Your task to perform on an android device: set an alarm Image 0: 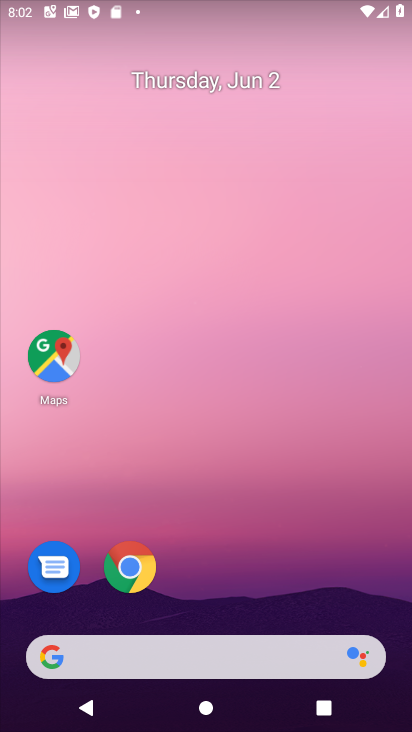
Step 0: drag from (274, 579) to (212, 136)
Your task to perform on an android device: set an alarm Image 1: 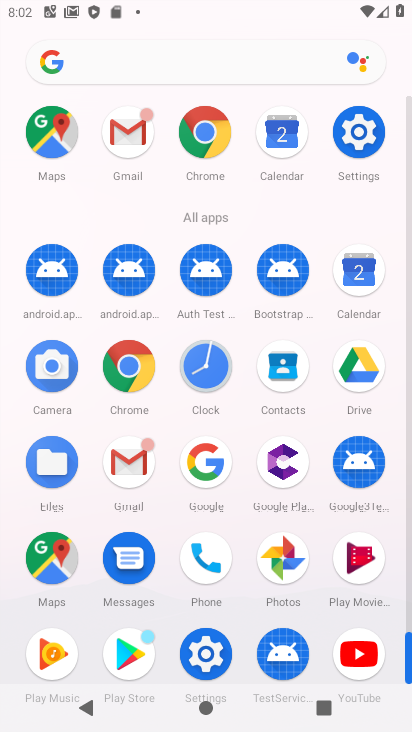
Step 1: click (209, 366)
Your task to perform on an android device: set an alarm Image 2: 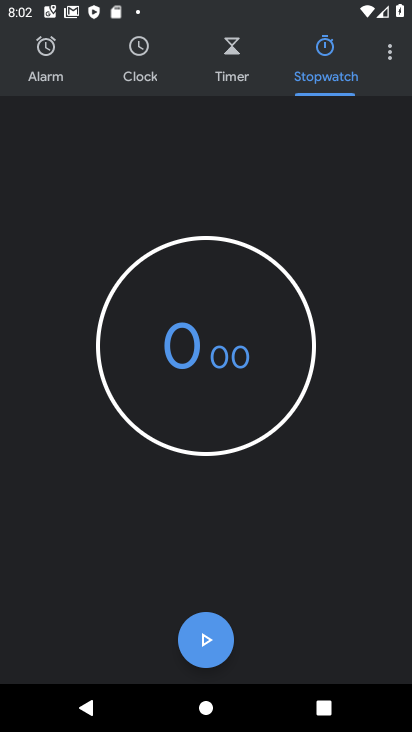
Step 2: click (48, 48)
Your task to perform on an android device: set an alarm Image 3: 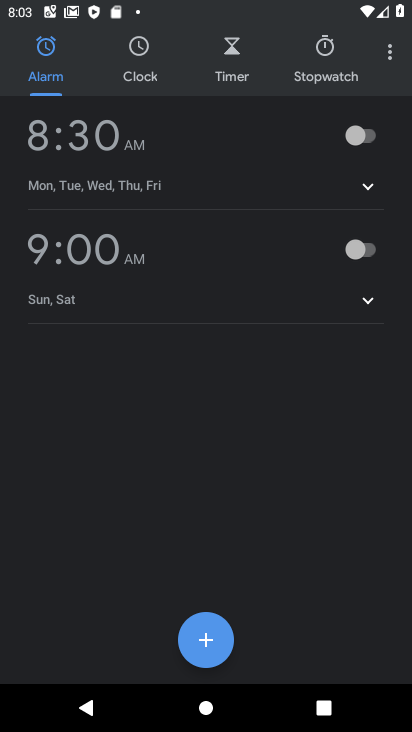
Step 3: click (207, 638)
Your task to perform on an android device: set an alarm Image 4: 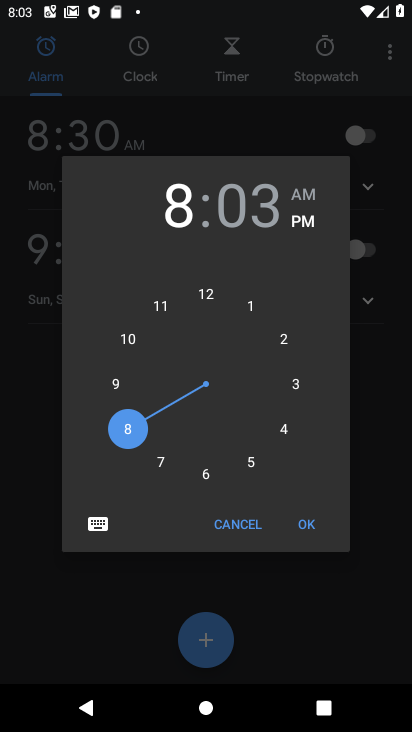
Step 4: click (208, 474)
Your task to perform on an android device: set an alarm Image 5: 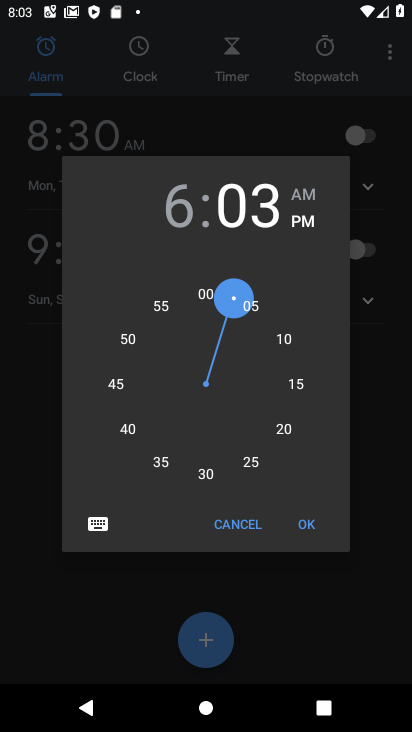
Step 5: click (285, 340)
Your task to perform on an android device: set an alarm Image 6: 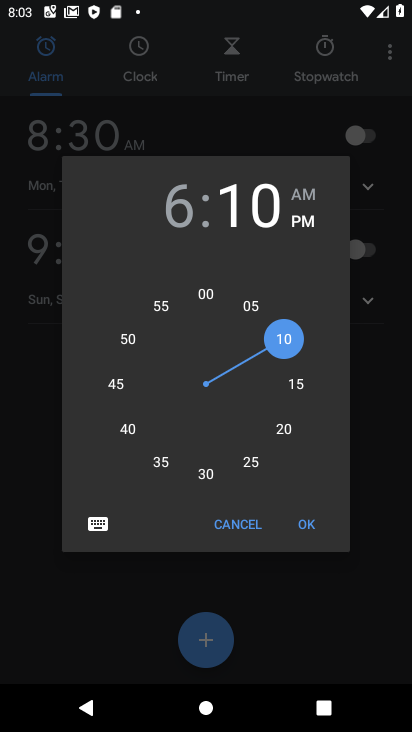
Step 6: click (313, 531)
Your task to perform on an android device: set an alarm Image 7: 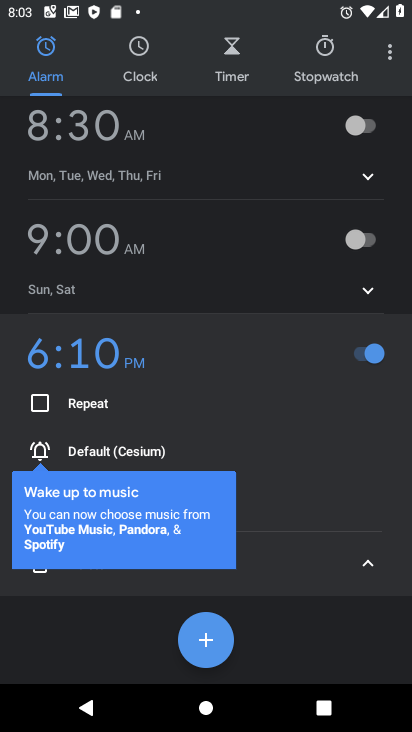
Step 7: click (365, 568)
Your task to perform on an android device: set an alarm Image 8: 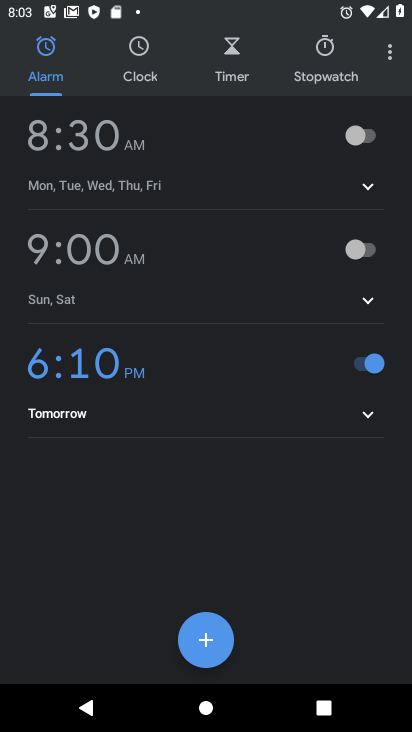
Step 8: task complete